Your task to perform on an android device: see creations saved in the google photos Image 0: 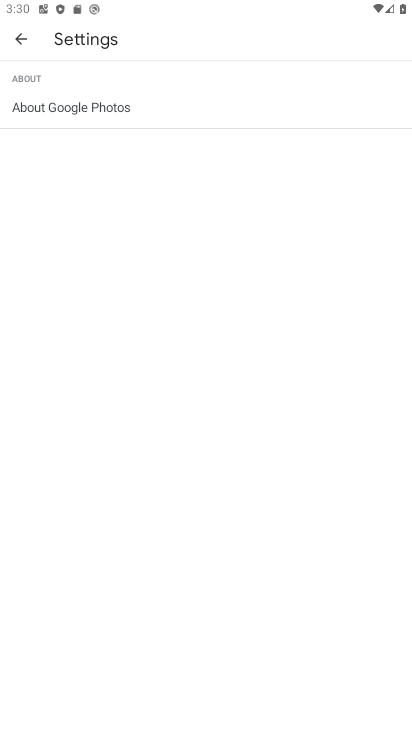
Step 0: press back button
Your task to perform on an android device: see creations saved in the google photos Image 1: 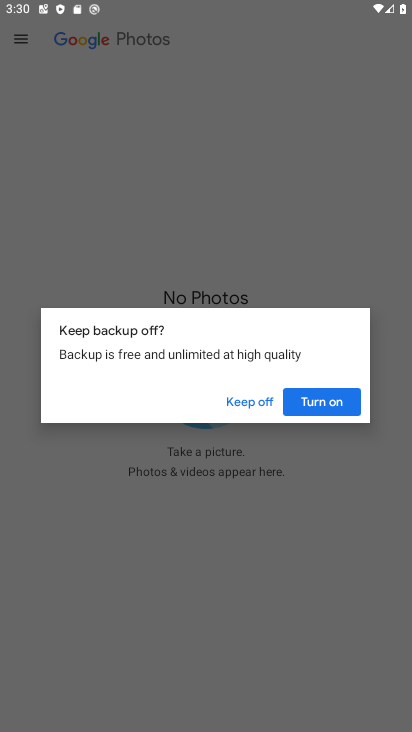
Step 1: press home button
Your task to perform on an android device: see creations saved in the google photos Image 2: 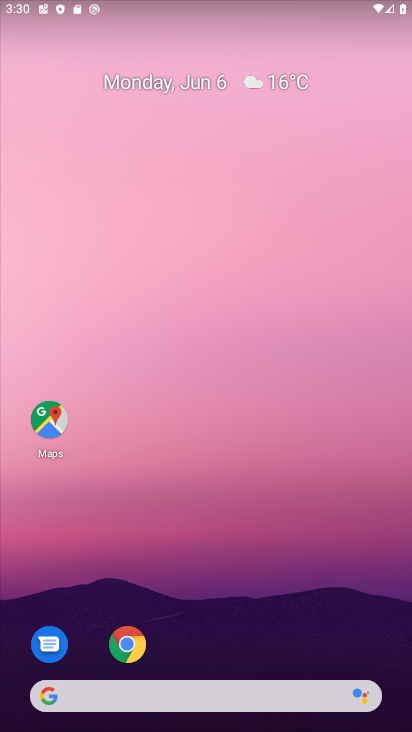
Step 2: drag from (212, 647) to (105, 60)
Your task to perform on an android device: see creations saved in the google photos Image 3: 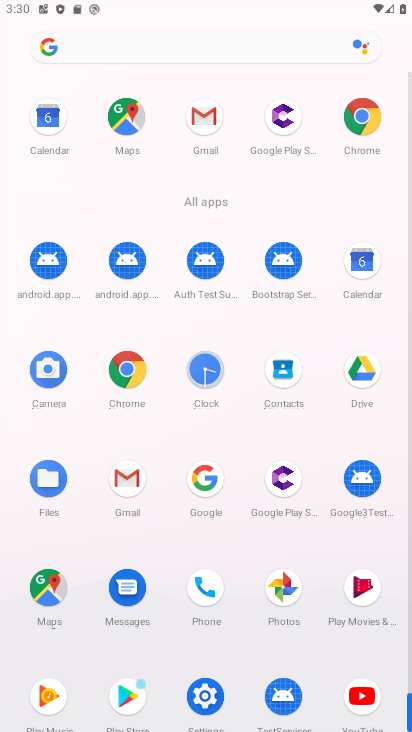
Step 3: click (282, 581)
Your task to perform on an android device: see creations saved in the google photos Image 4: 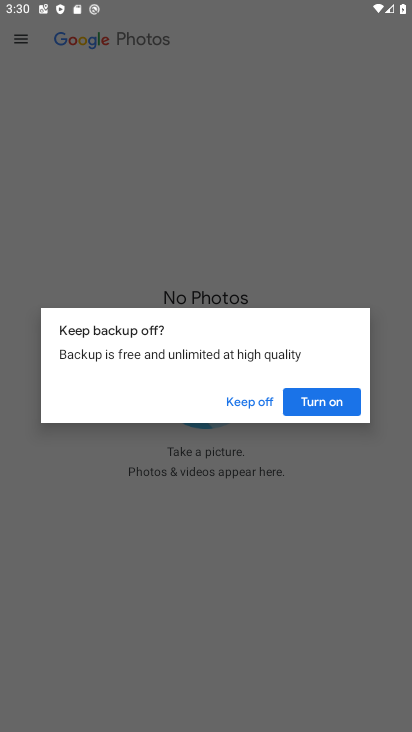
Step 4: click (314, 404)
Your task to perform on an android device: see creations saved in the google photos Image 5: 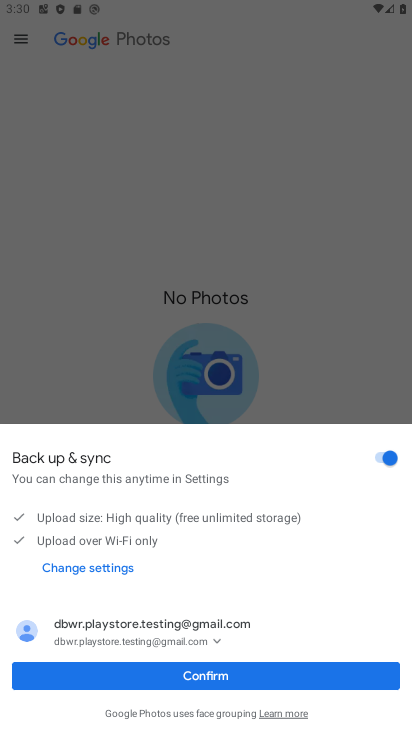
Step 5: click (211, 672)
Your task to perform on an android device: see creations saved in the google photos Image 6: 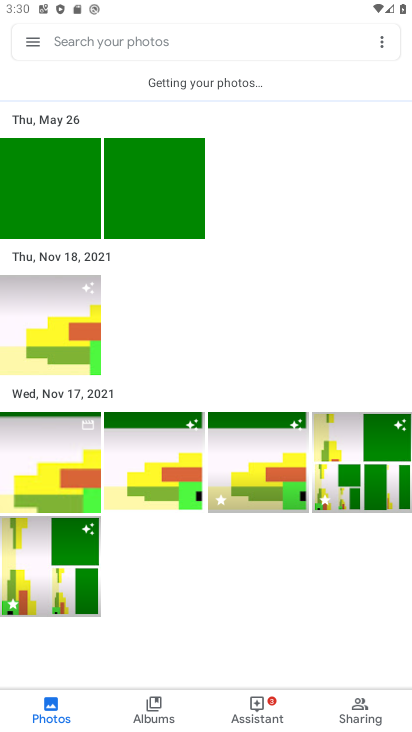
Step 6: task complete